Your task to perform on an android device: Open settings on Google Maps Image 0: 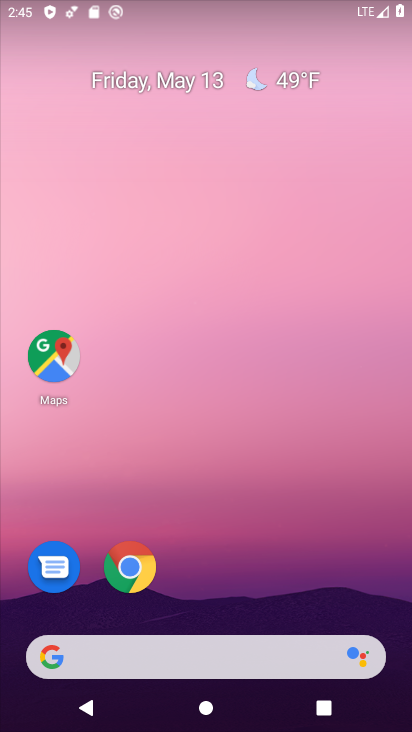
Step 0: drag from (212, 616) to (195, 0)
Your task to perform on an android device: Open settings on Google Maps Image 1: 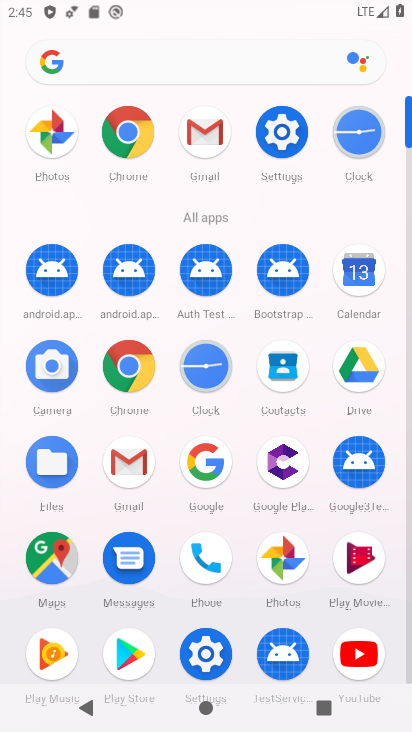
Step 1: click (60, 561)
Your task to perform on an android device: Open settings on Google Maps Image 2: 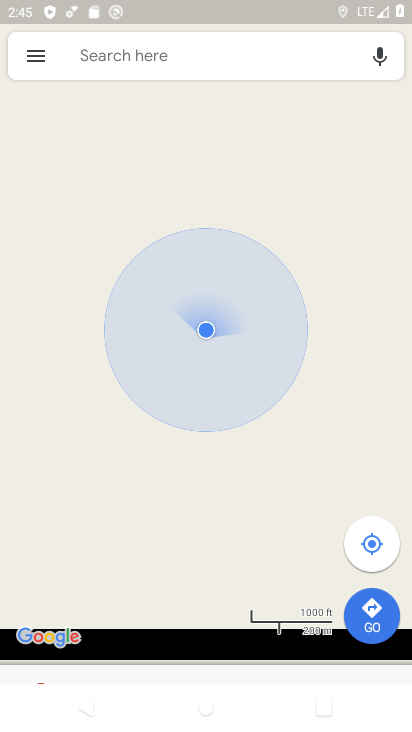
Step 2: click (22, 60)
Your task to perform on an android device: Open settings on Google Maps Image 3: 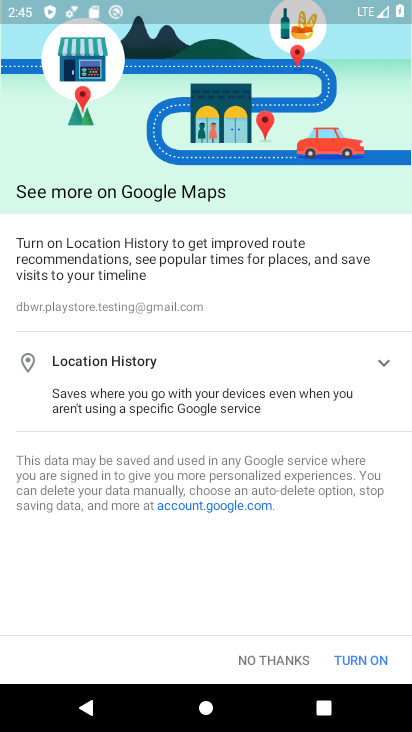
Step 3: click (368, 662)
Your task to perform on an android device: Open settings on Google Maps Image 4: 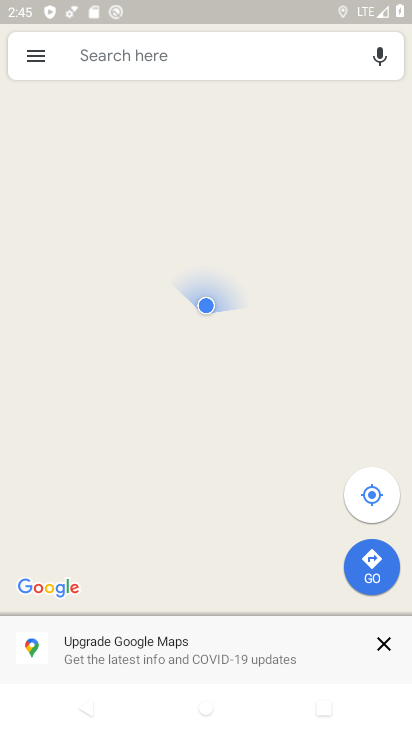
Step 4: click (366, 662)
Your task to perform on an android device: Open settings on Google Maps Image 5: 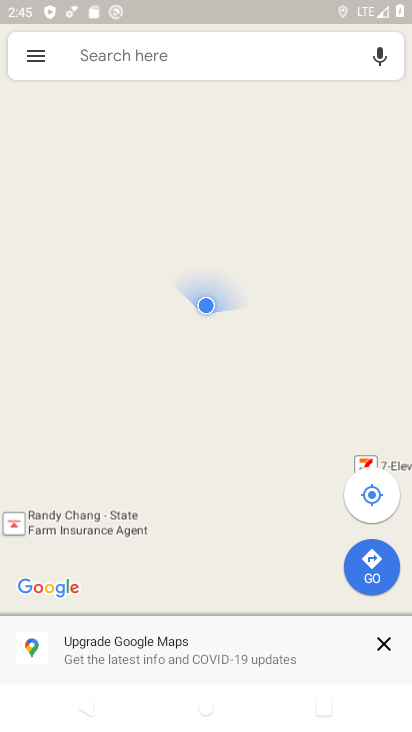
Step 5: click (377, 645)
Your task to perform on an android device: Open settings on Google Maps Image 6: 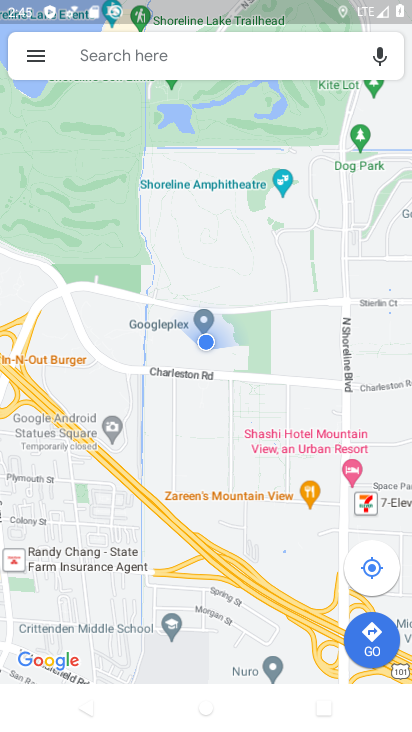
Step 6: click (21, 53)
Your task to perform on an android device: Open settings on Google Maps Image 7: 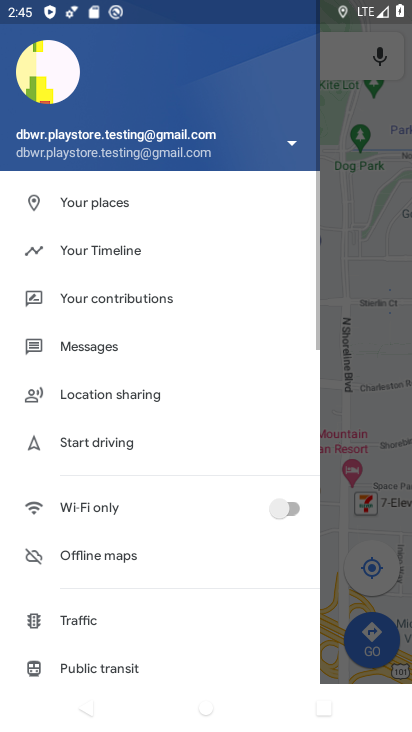
Step 7: drag from (114, 558) to (106, 83)
Your task to perform on an android device: Open settings on Google Maps Image 8: 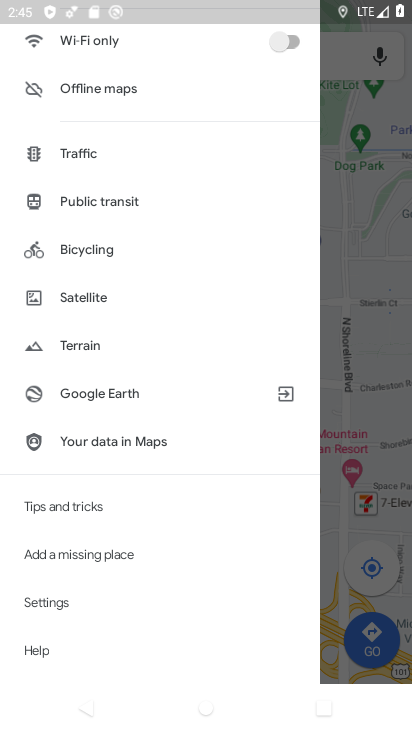
Step 8: click (58, 609)
Your task to perform on an android device: Open settings on Google Maps Image 9: 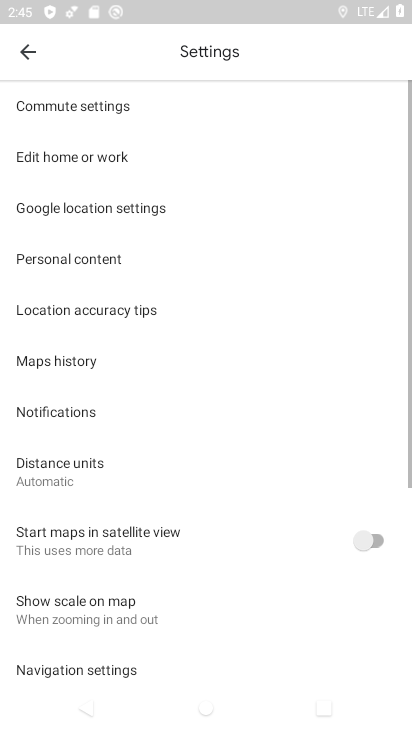
Step 9: task complete